Your task to perform on an android device: Open network settings Image 0: 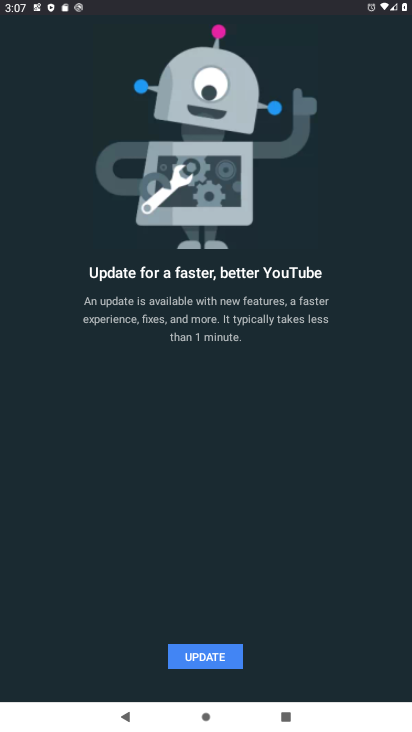
Step 0: drag from (160, 187) to (264, 542)
Your task to perform on an android device: Open network settings Image 1: 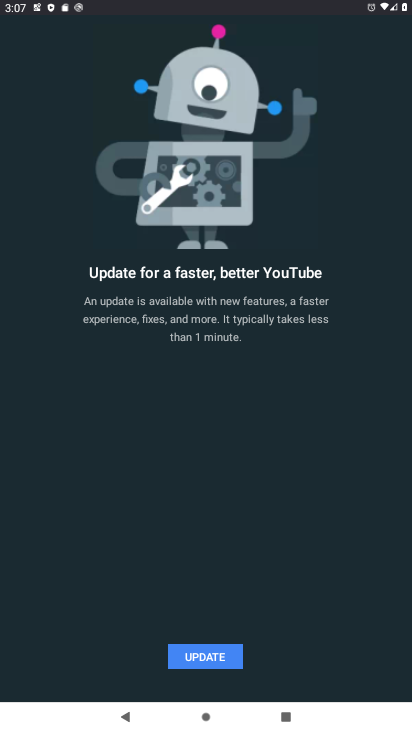
Step 1: drag from (218, 306) to (231, 546)
Your task to perform on an android device: Open network settings Image 2: 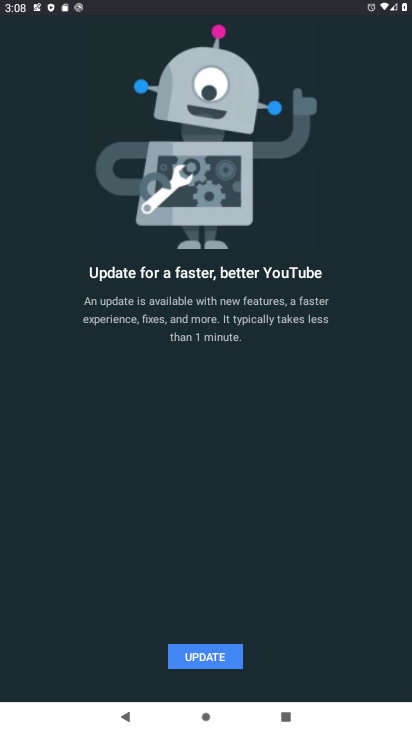
Step 2: drag from (145, 162) to (186, 595)
Your task to perform on an android device: Open network settings Image 3: 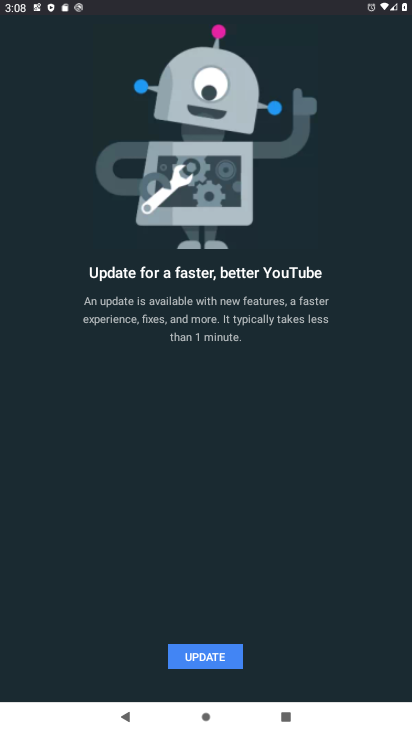
Step 3: drag from (145, 13) to (163, 428)
Your task to perform on an android device: Open network settings Image 4: 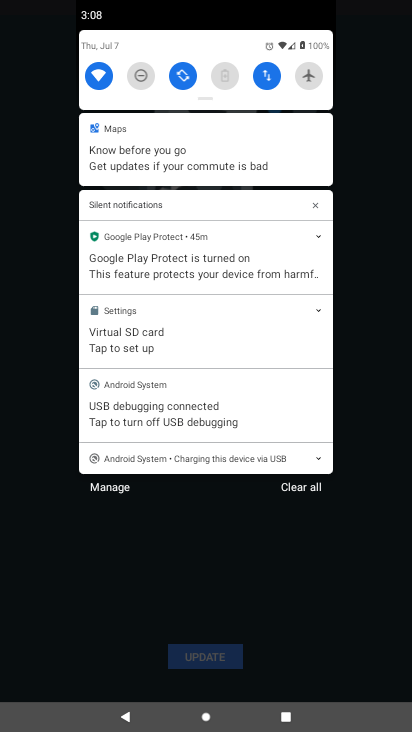
Step 4: click (269, 79)
Your task to perform on an android device: Open network settings Image 5: 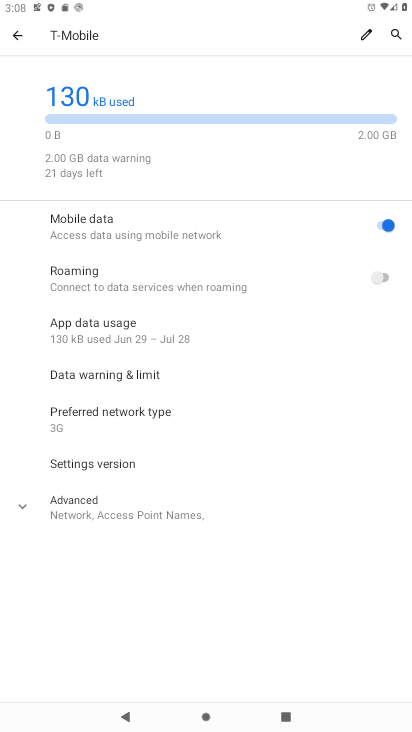
Step 5: task complete